Your task to perform on an android device: change your default location settings in chrome Image 0: 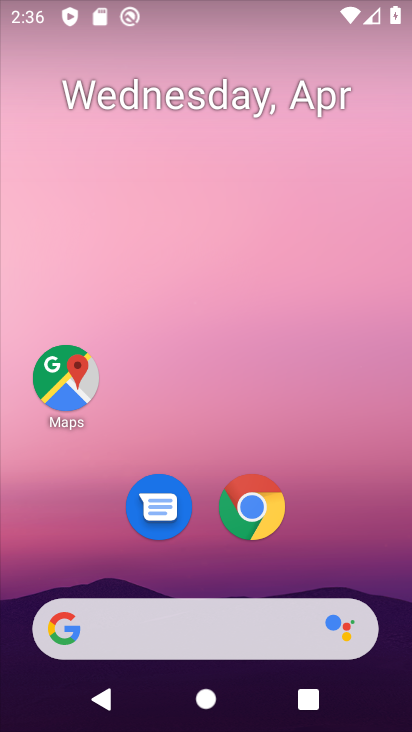
Step 0: click (252, 497)
Your task to perform on an android device: change your default location settings in chrome Image 1: 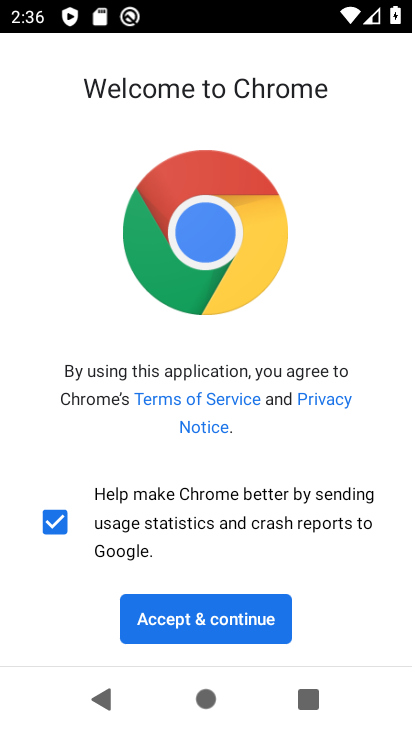
Step 1: click (196, 607)
Your task to perform on an android device: change your default location settings in chrome Image 2: 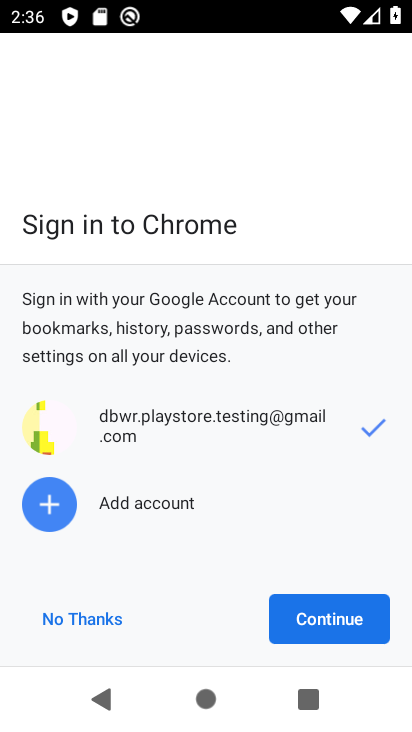
Step 2: click (303, 615)
Your task to perform on an android device: change your default location settings in chrome Image 3: 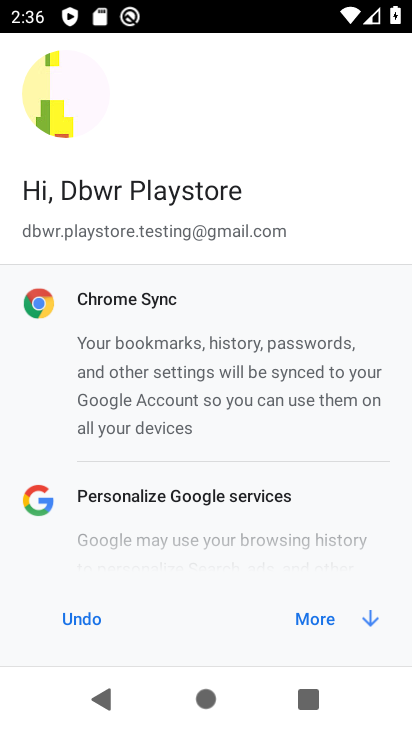
Step 3: click (303, 615)
Your task to perform on an android device: change your default location settings in chrome Image 4: 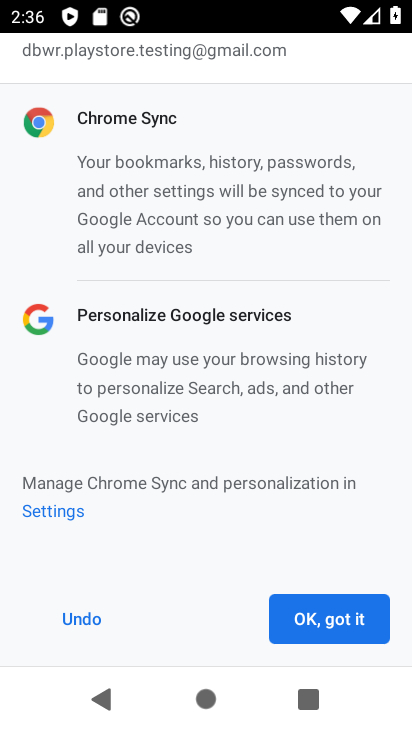
Step 4: click (303, 615)
Your task to perform on an android device: change your default location settings in chrome Image 5: 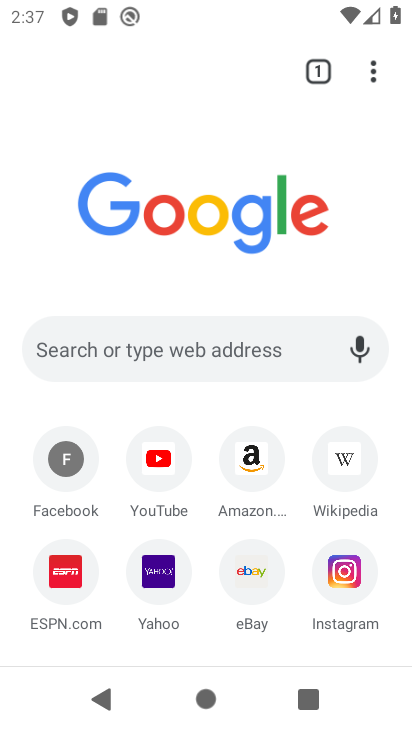
Step 5: drag from (377, 71) to (141, 508)
Your task to perform on an android device: change your default location settings in chrome Image 6: 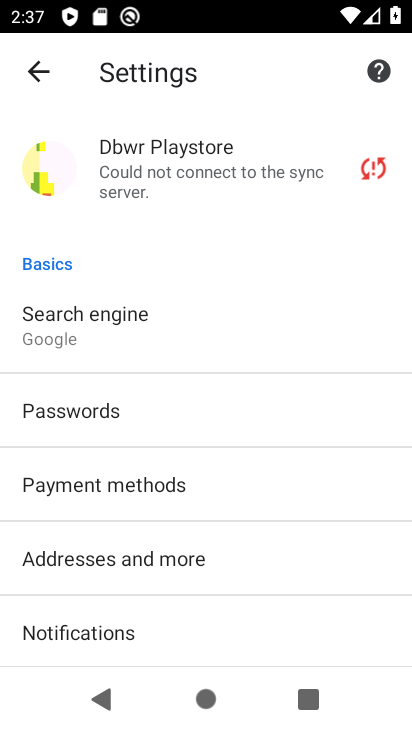
Step 6: drag from (180, 593) to (171, 114)
Your task to perform on an android device: change your default location settings in chrome Image 7: 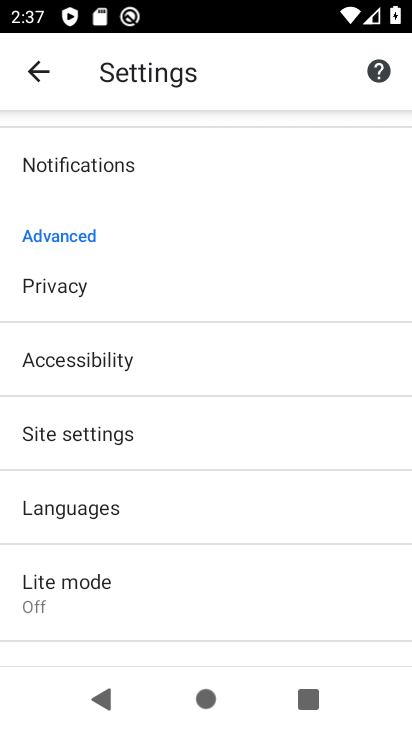
Step 7: click (135, 451)
Your task to perform on an android device: change your default location settings in chrome Image 8: 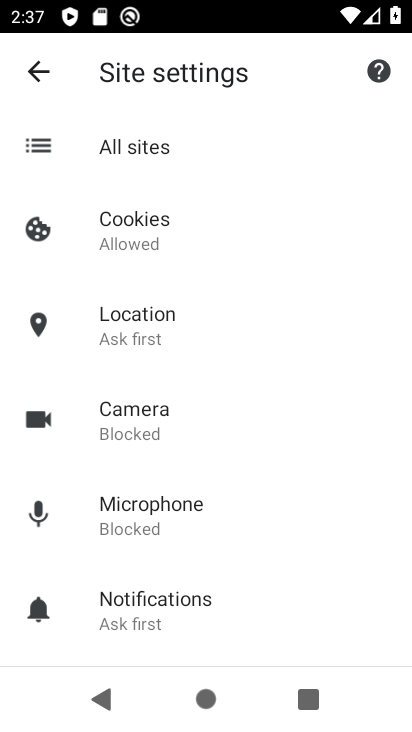
Step 8: click (165, 320)
Your task to perform on an android device: change your default location settings in chrome Image 9: 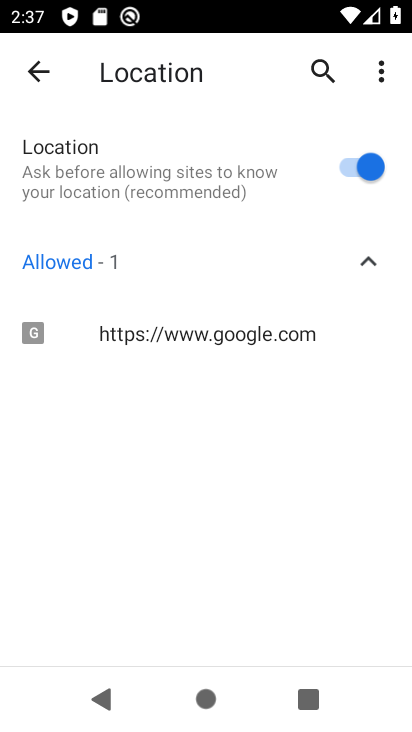
Step 9: click (360, 166)
Your task to perform on an android device: change your default location settings in chrome Image 10: 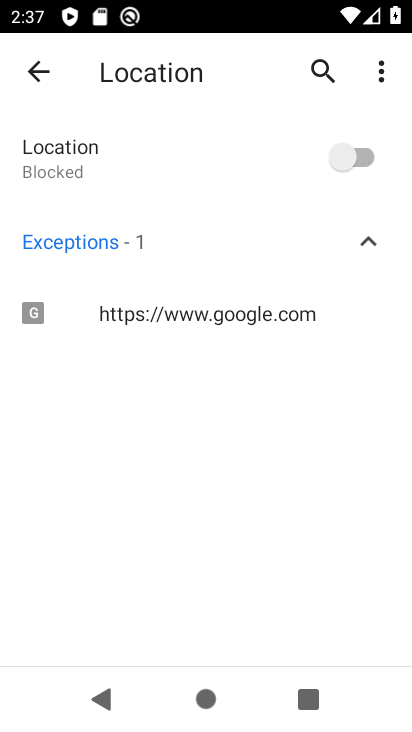
Step 10: task complete